Your task to perform on an android device: remove spam from my inbox in the gmail app Image 0: 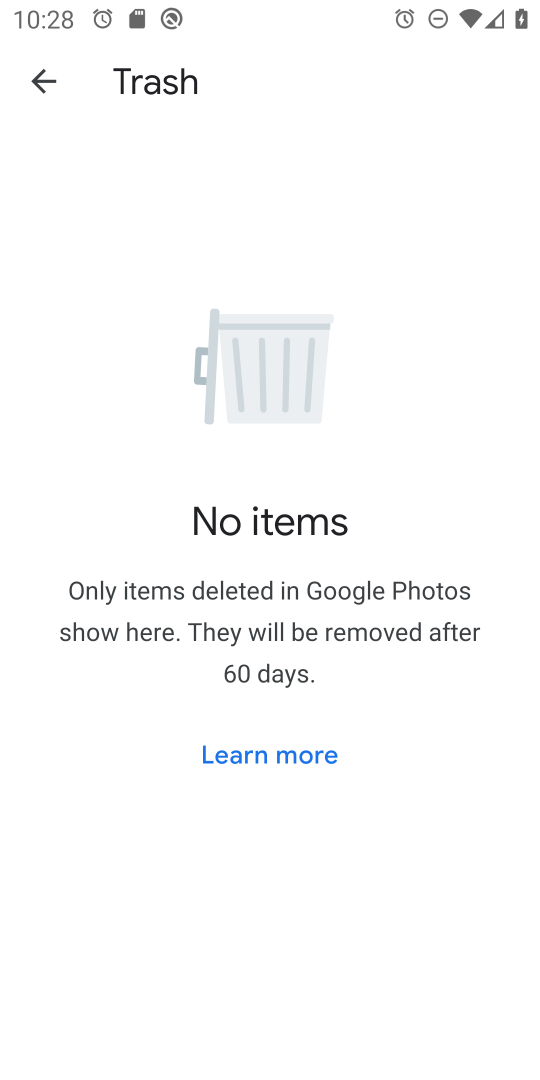
Step 0: press home button
Your task to perform on an android device: remove spam from my inbox in the gmail app Image 1: 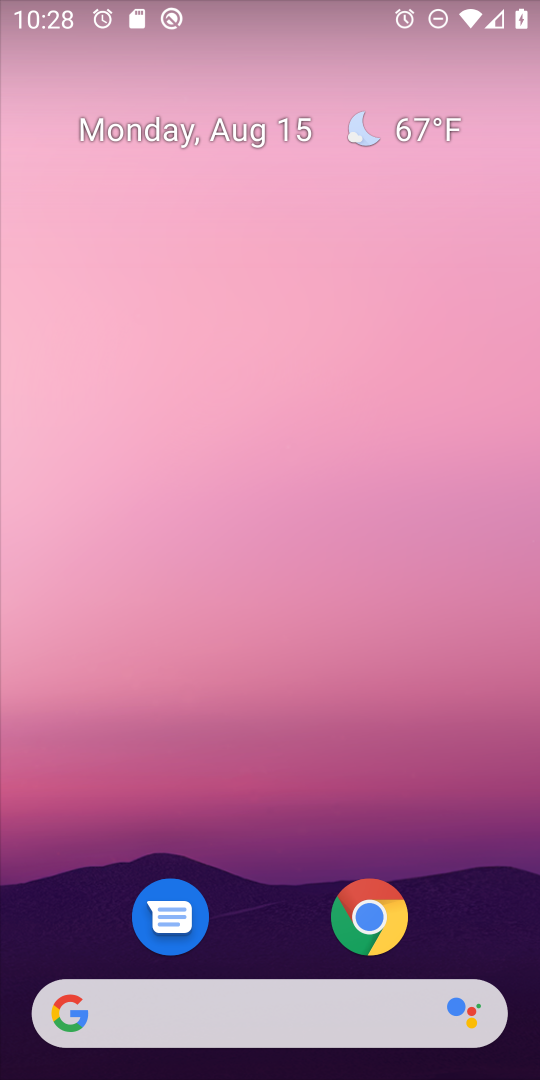
Step 1: drag from (298, 799) to (323, 556)
Your task to perform on an android device: remove spam from my inbox in the gmail app Image 2: 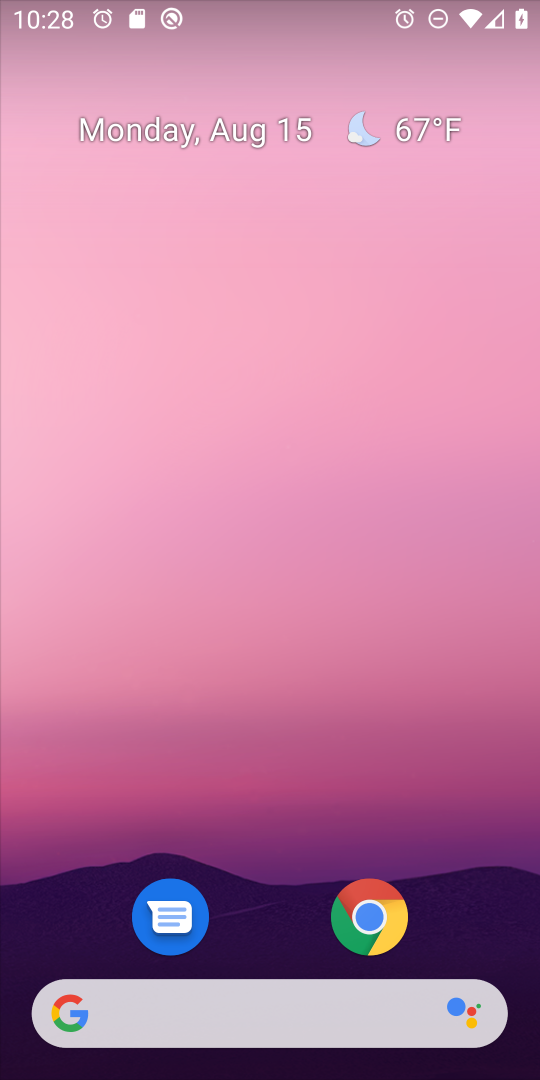
Step 2: drag from (352, 313) to (383, 5)
Your task to perform on an android device: remove spam from my inbox in the gmail app Image 3: 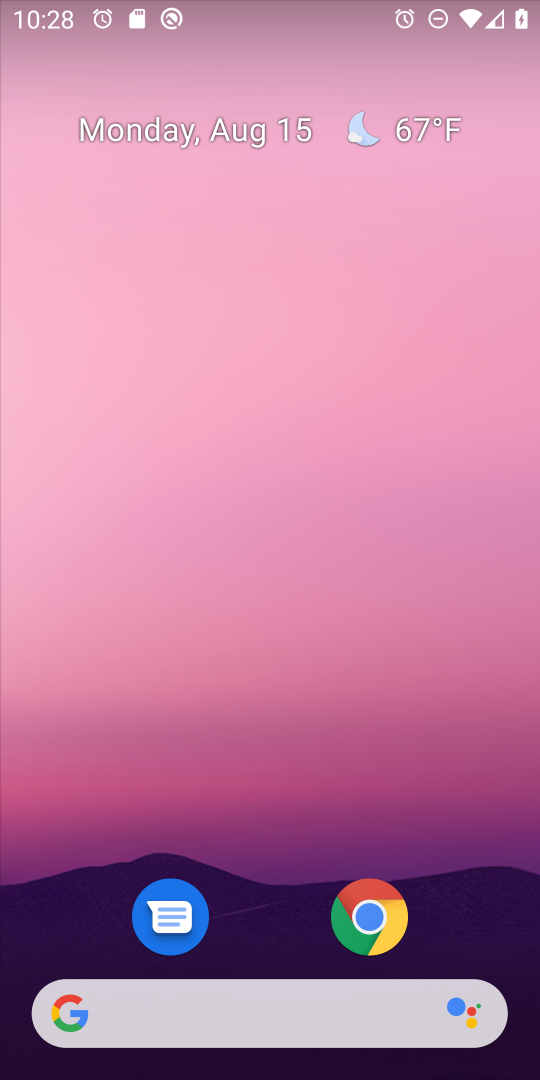
Step 3: drag from (230, 778) to (339, 0)
Your task to perform on an android device: remove spam from my inbox in the gmail app Image 4: 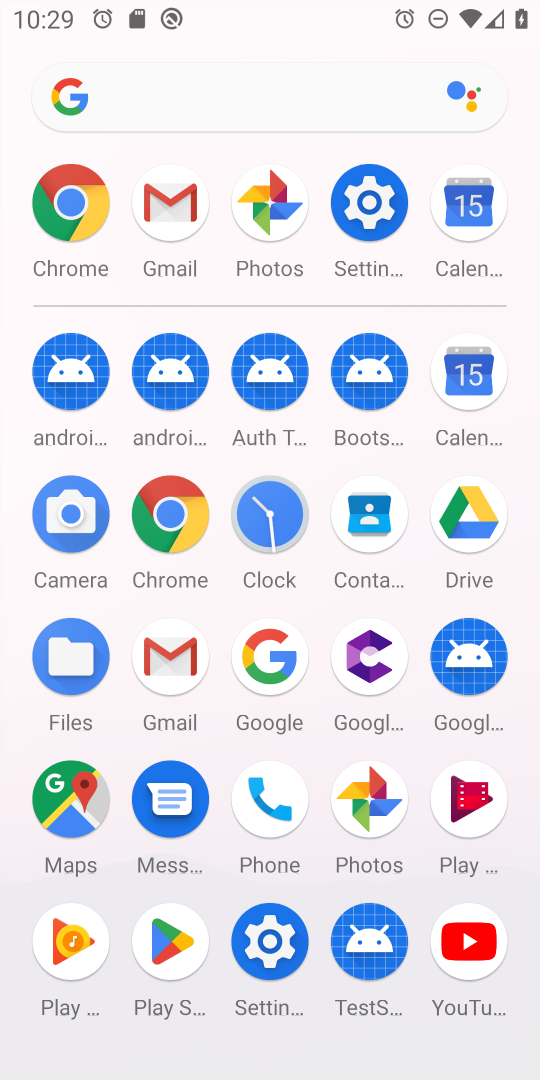
Step 4: click (177, 203)
Your task to perform on an android device: remove spam from my inbox in the gmail app Image 5: 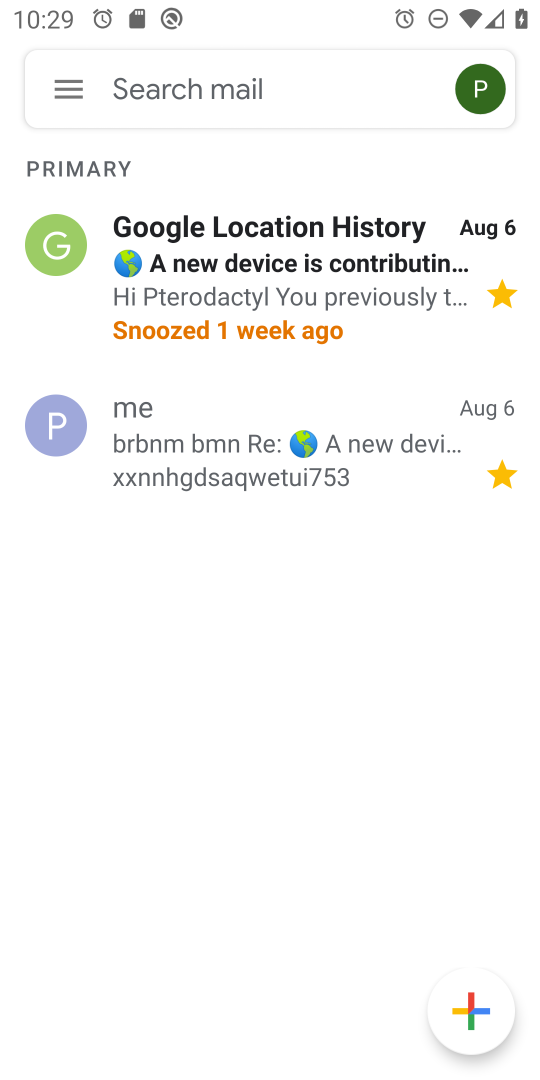
Step 5: click (66, 90)
Your task to perform on an android device: remove spam from my inbox in the gmail app Image 6: 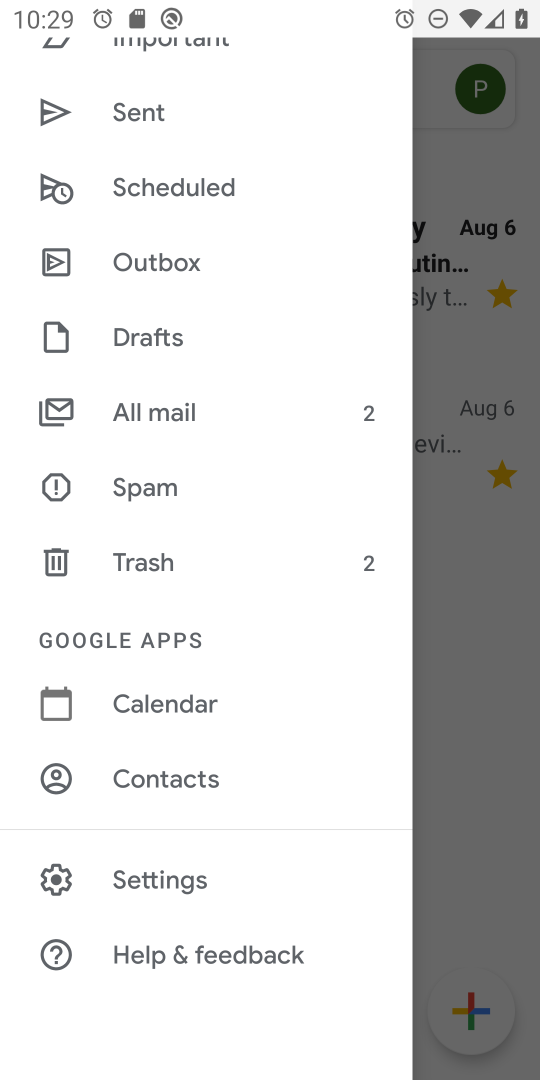
Step 6: click (143, 475)
Your task to perform on an android device: remove spam from my inbox in the gmail app Image 7: 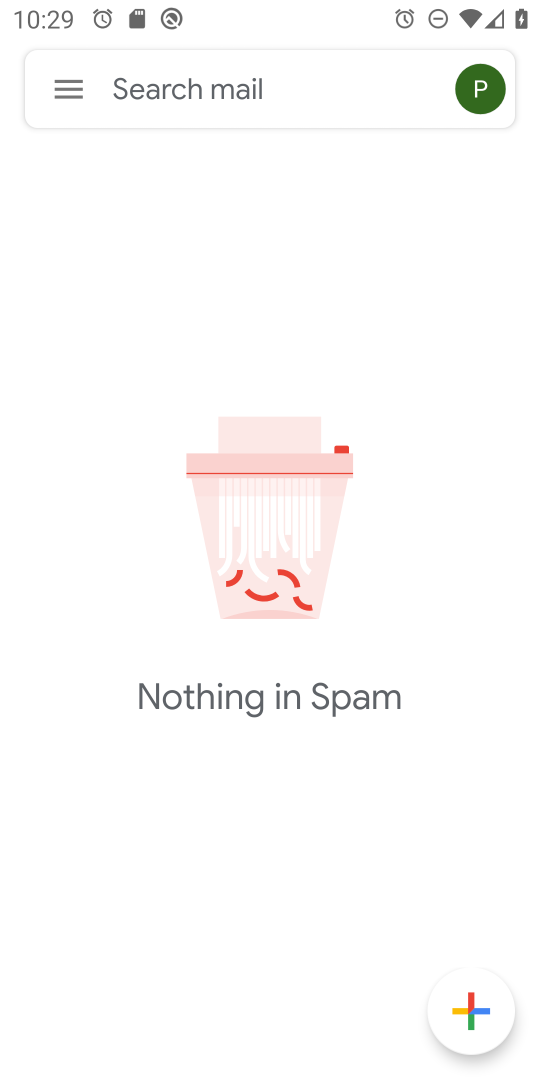
Step 7: task complete